Your task to perform on an android device: Go to ESPN.com Image 0: 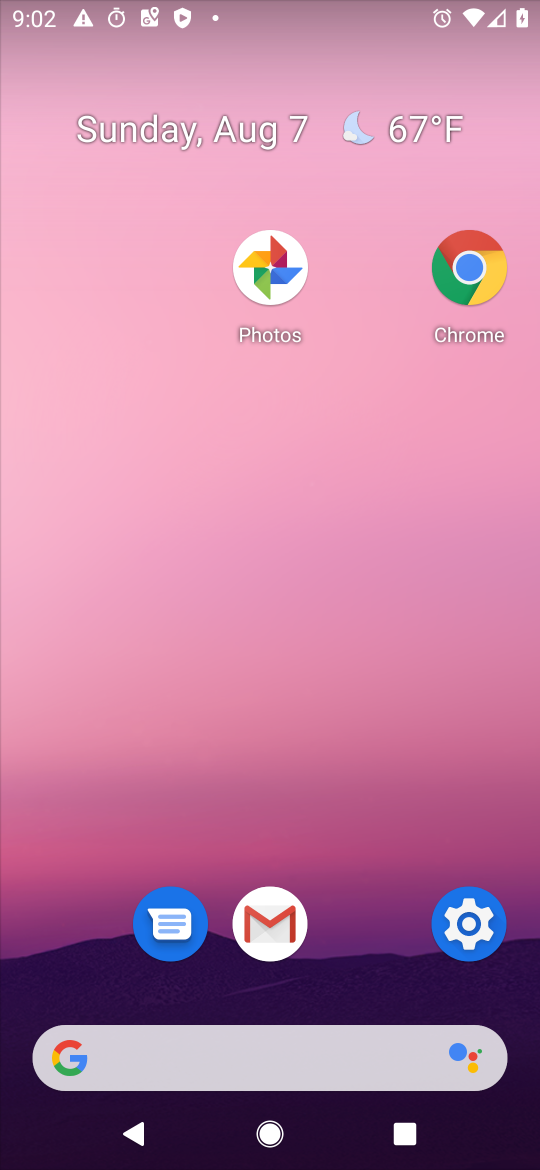
Step 0: press home button
Your task to perform on an android device: Go to ESPN.com Image 1: 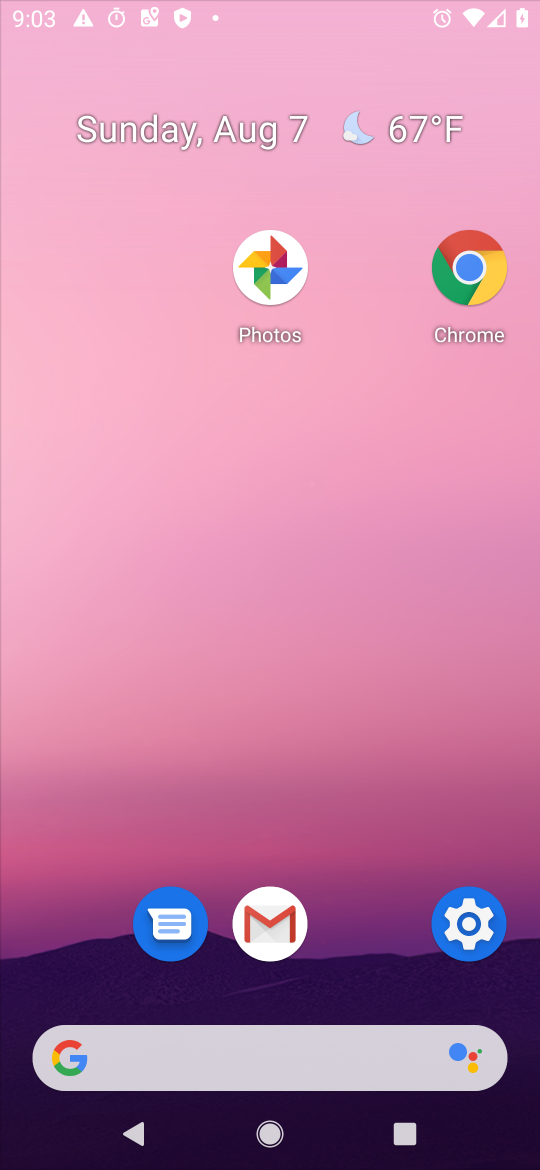
Step 1: drag from (367, 988) to (340, 258)
Your task to perform on an android device: Go to ESPN.com Image 2: 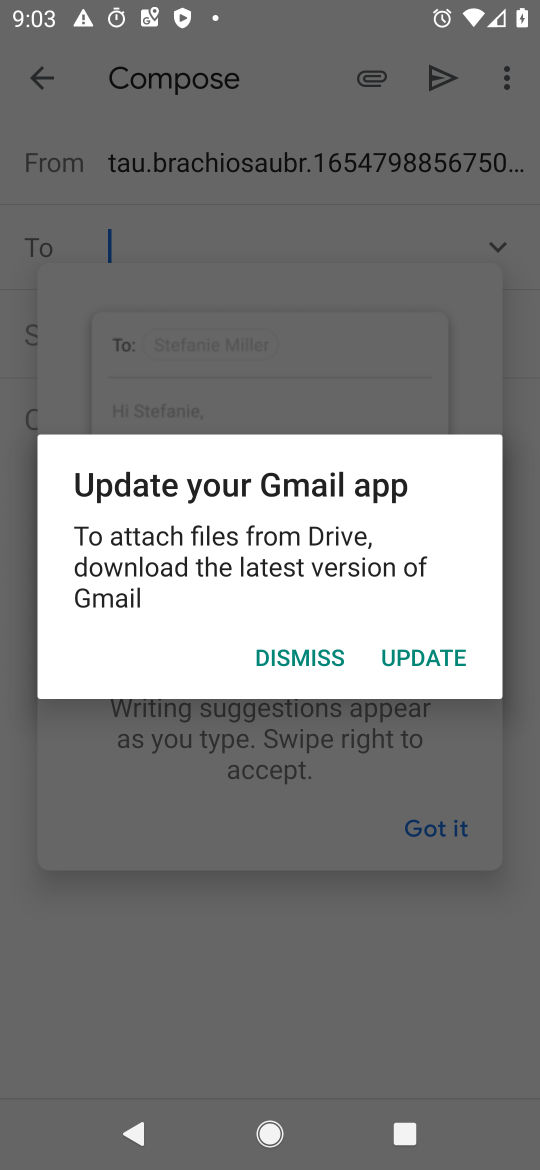
Step 2: click (183, 231)
Your task to perform on an android device: Go to ESPN.com Image 3: 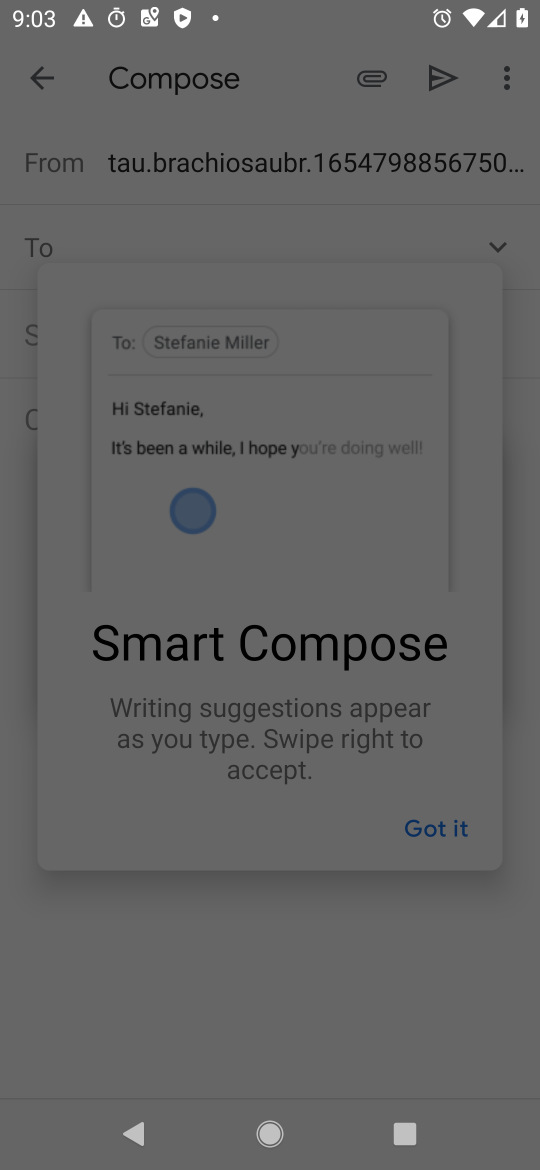
Step 3: press home button
Your task to perform on an android device: Go to ESPN.com Image 4: 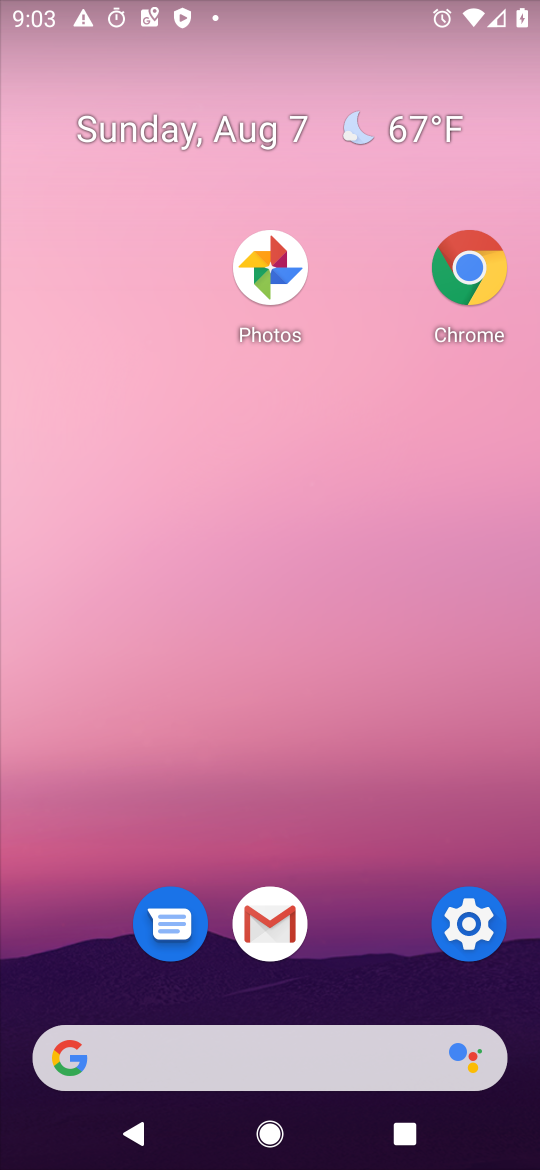
Step 4: drag from (427, 1053) to (290, 272)
Your task to perform on an android device: Go to ESPN.com Image 5: 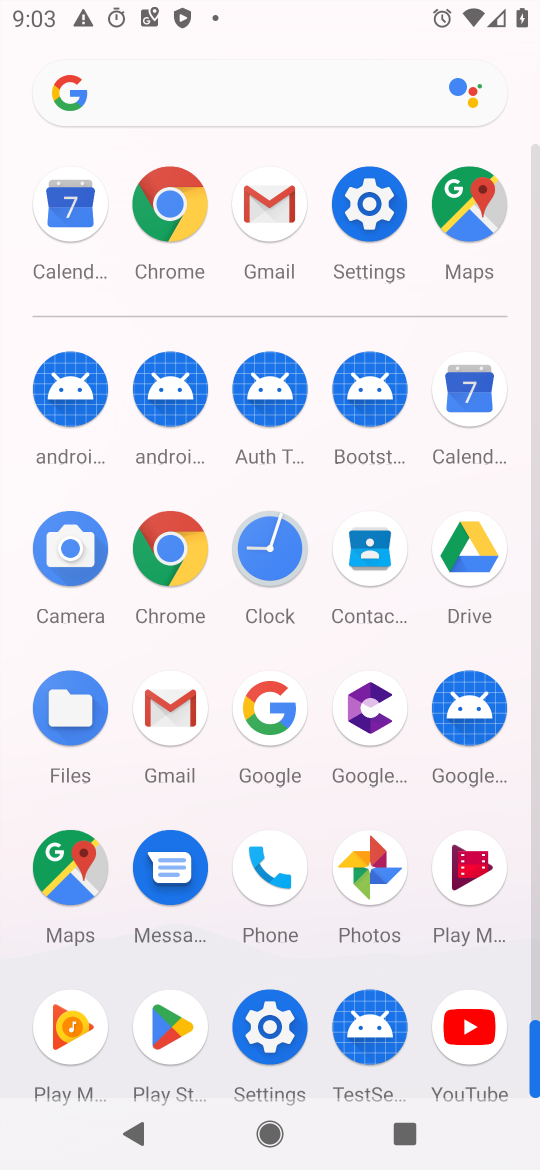
Step 5: click (185, 224)
Your task to perform on an android device: Go to ESPN.com Image 6: 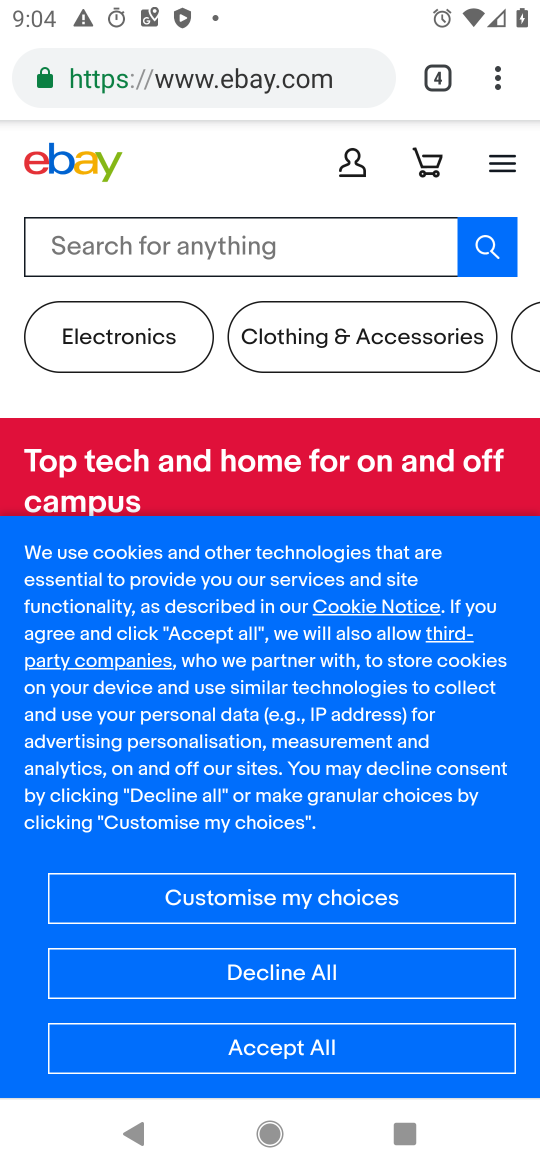
Step 6: click (438, 86)
Your task to perform on an android device: Go to ESPN.com Image 7: 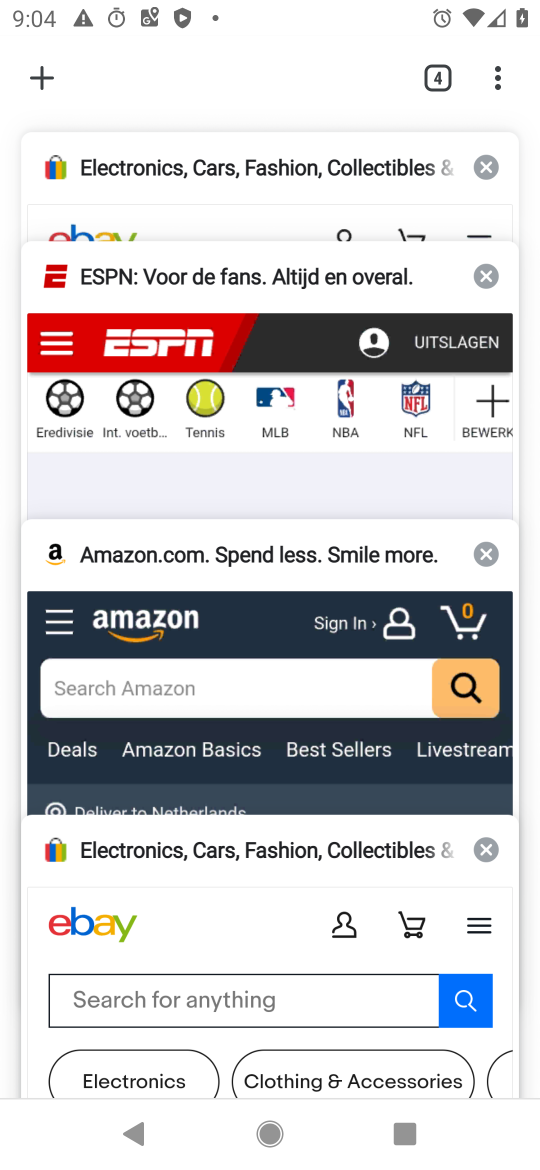
Step 7: click (161, 297)
Your task to perform on an android device: Go to ESPN.com Image 8: 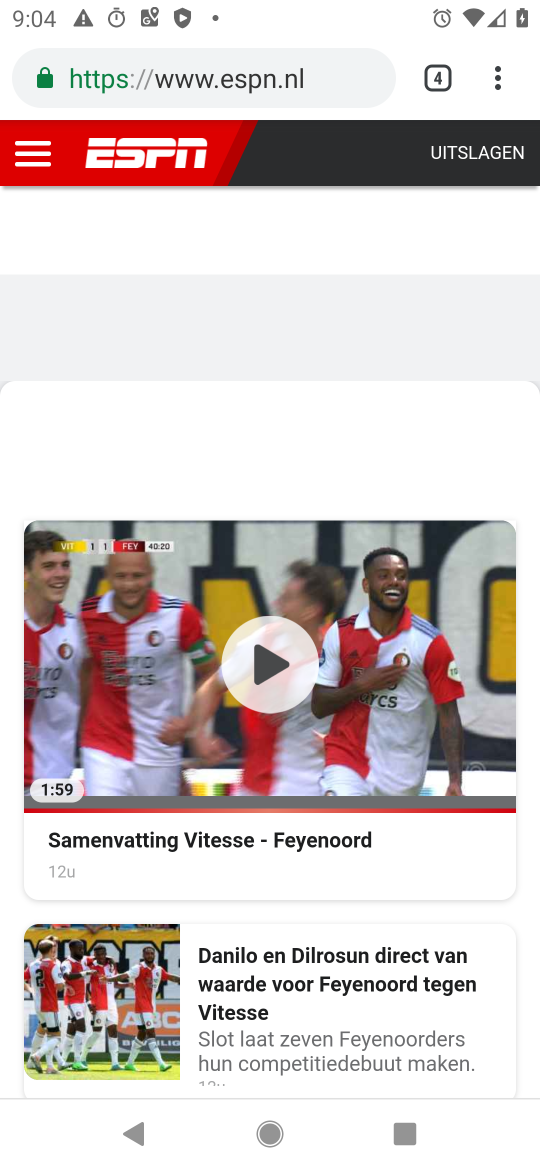
Step 8: task complete